Your task to perform on an android device: Open Google Chrome and click the shortcut for Amazon.com Image 0: 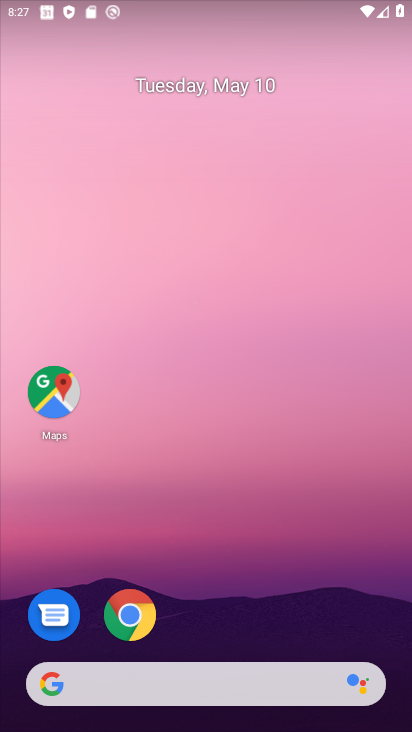
Step 0: drag from (252, 654) to (264, 199)
Your task to perform on an android device: Open Google Chrome and click the shortcut for Amazon.com Image 1: 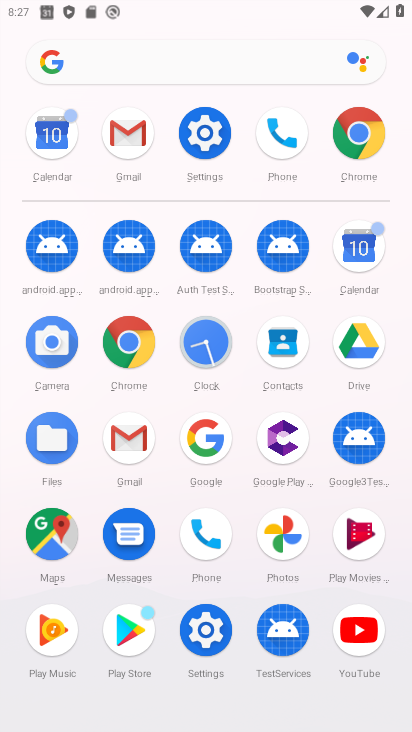
Step 1: click (127, 337)
Your task to perform on an android device: Open Google Chrome and click the shortcut for Amazon.com Image 2: 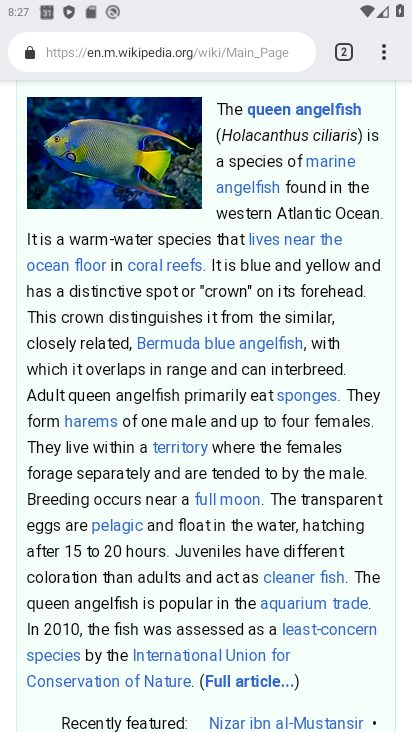
Step 2: drag from (236, 208) to (321, 509)
Your task to perform on an android device: Open Google Chrome and click the shortcut for Amazon.com Image 3: 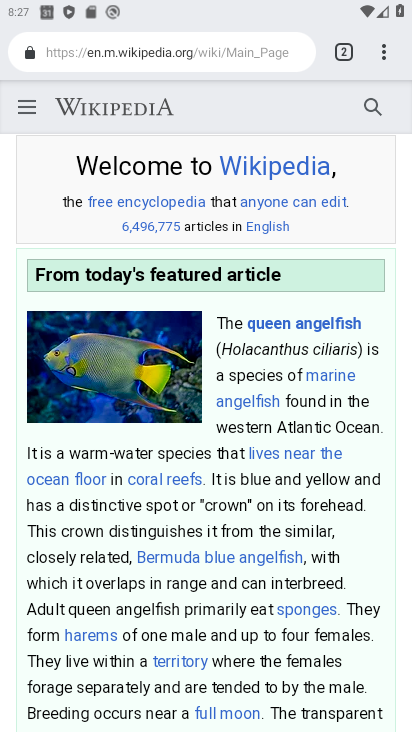
Step 3: click (347, 51)
Your task to perform on an android device: Open Google Chrome and click the shortcut for Amazon.com Image 4: 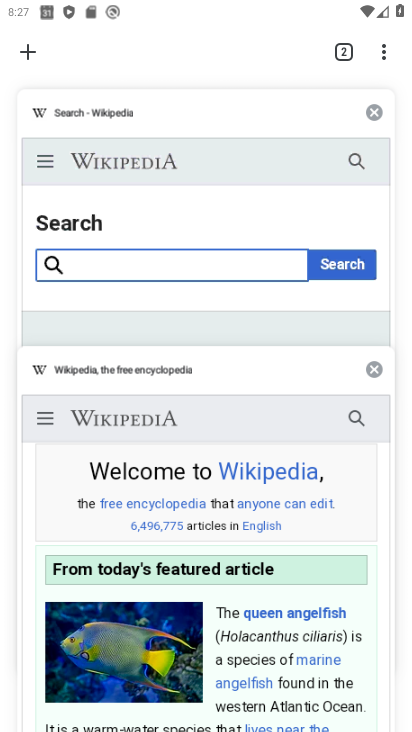
Step 4: click (31, 45)
Your task to perform on an android device: Open Google Chrome and click the shortcut for Amazon.com Image 5: 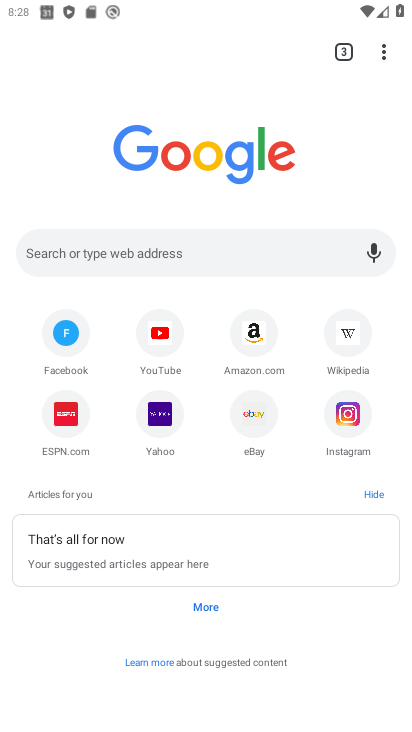
Step 5: drag from (250, 645) to (249, 345)
Your task to perform on an android device: Open Google Chrome and click the shortcut for Amazon.com Image 6: 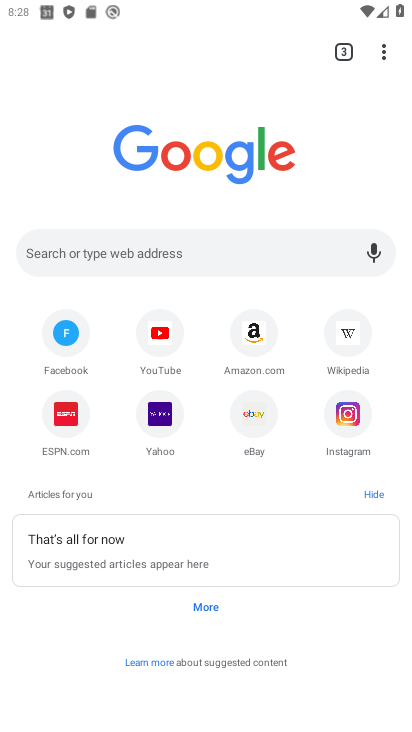
Step 6: click (251, 333)
Your task to perform on an android device: Open Google Chrome and click the shortcut for Amazon.com Image 7: 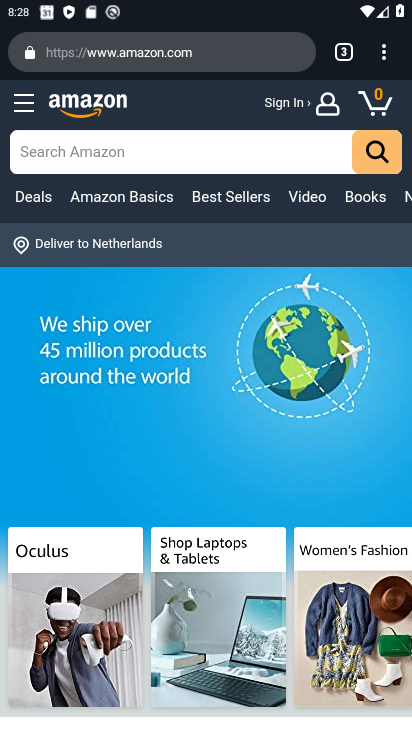
Step 7: task complete